Your task to perform on an android device: set the timer Image 0: 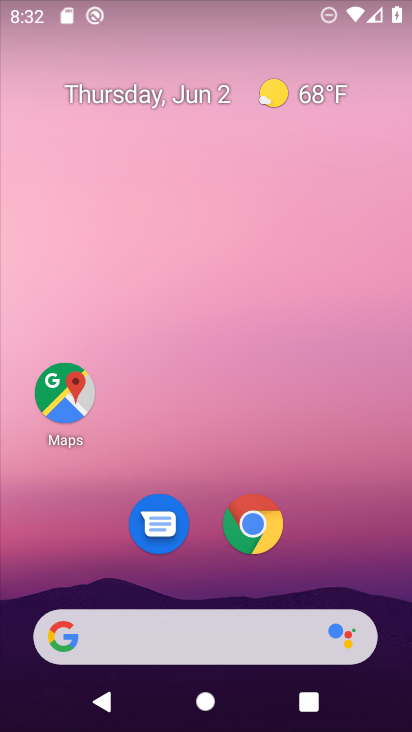
Step 0: drag from (325, 533) to (322, 20)
Your task to perform on an android device: set the timer Image 1: 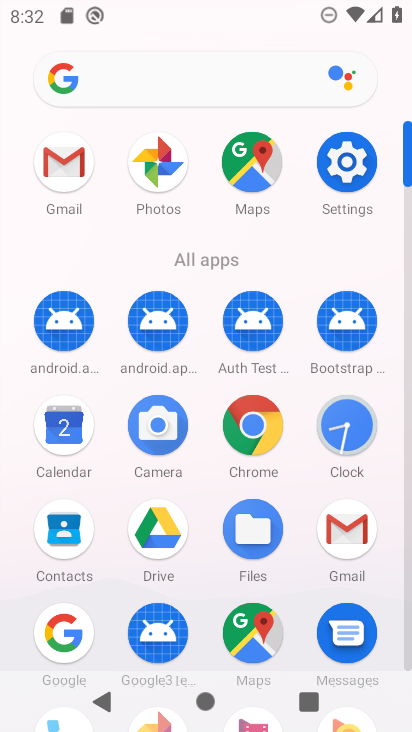
Step 1: click (342, 422)
Your task to perform on an android device: set the timer Image 2: 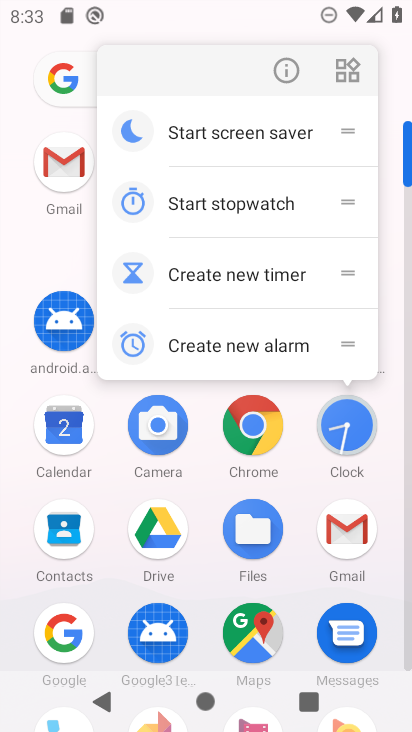
Step 2: click (357, 423)
Your task to perform on an android device: set the timer Image 3: 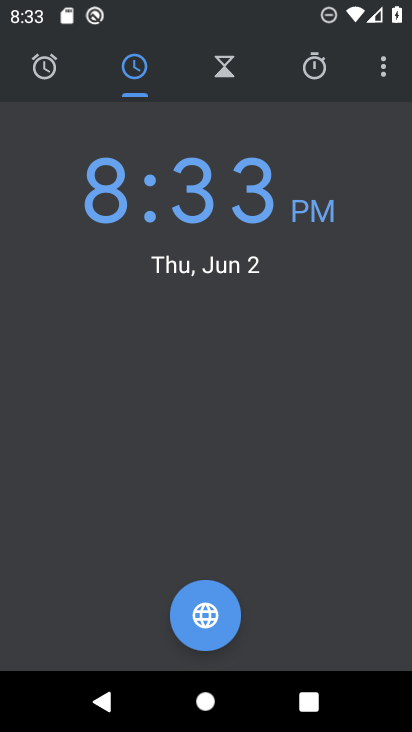
Step 3: click (225, 62)
Your task to perform on an android device: set the timer Image 4: 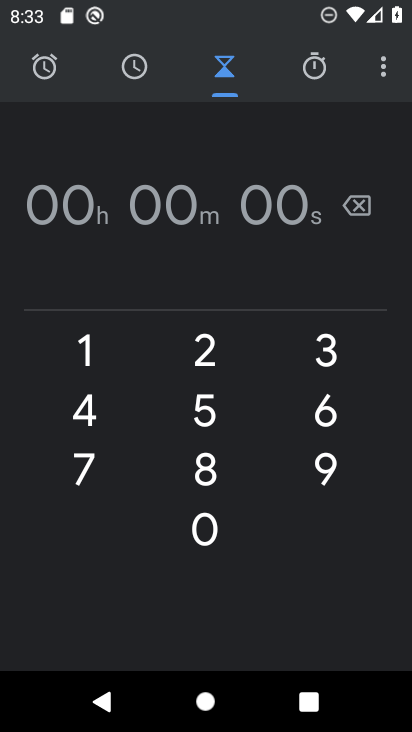
Step 4: click (83, 355)
Your task to perform on an android device: set the timer Image 5: 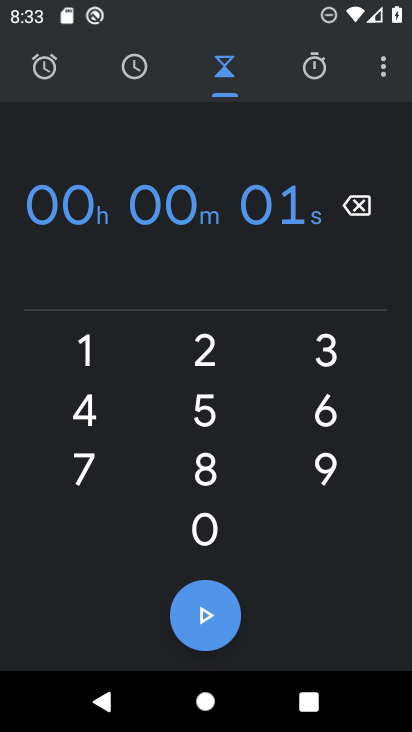
Step 5: click (202, 409)
Your task to perform on an android device: set the timer Image 6: 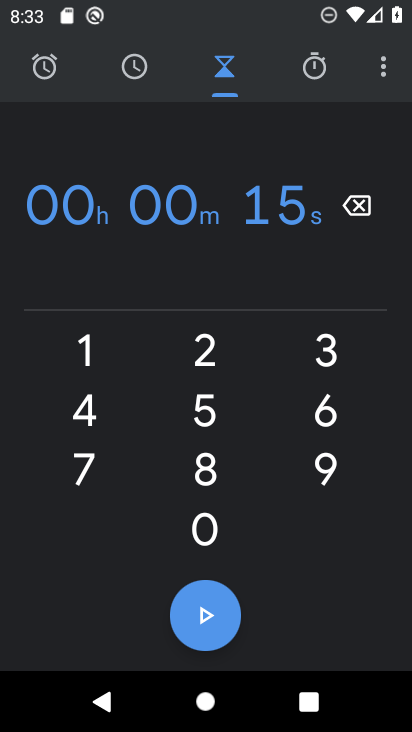
Step 6: task complete